Your task to perform on an android device: Open the phone app and click the voicemail tab. Image 0: 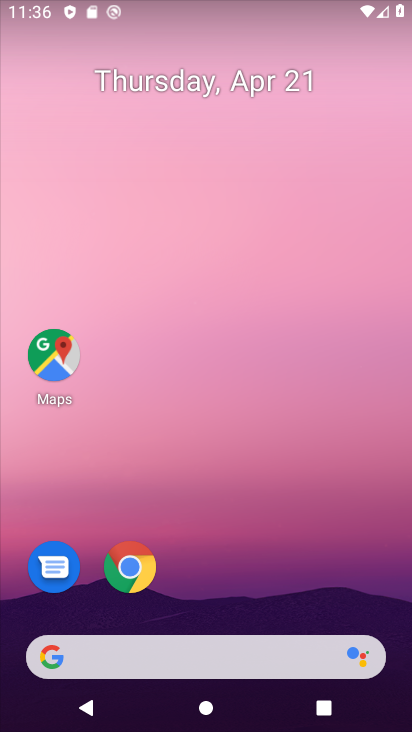
Step 0: drag from (173, 565) to (217, 190)
Your task to perform on an android device: Open the phone app and click the voicemail tab. Image 1: 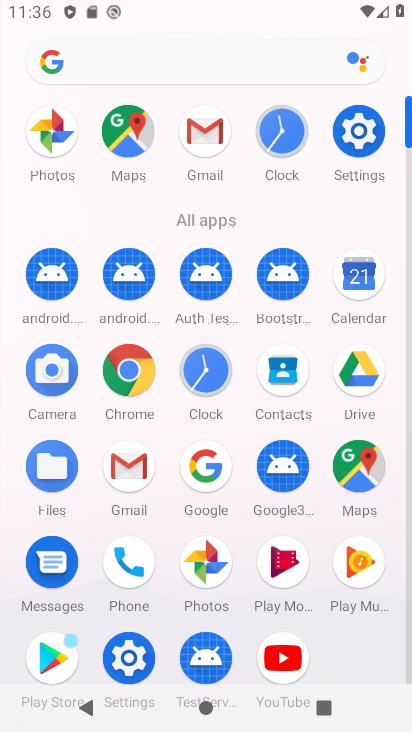
Step 1: click (128, 558)
Your task to perform on an android device: Open the phone app and click the voicemail tab. Image 2: 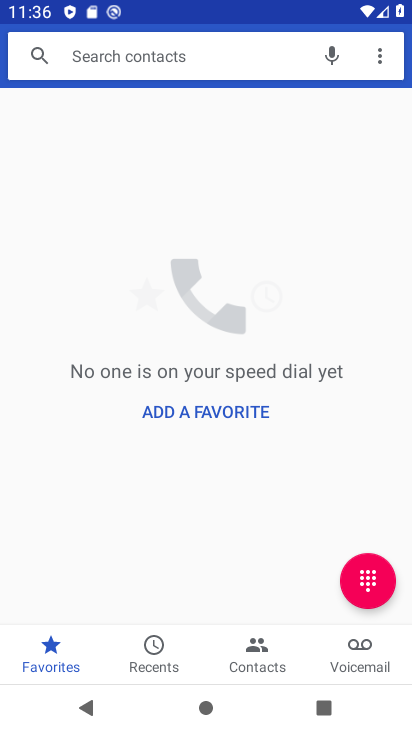
Step 2: click (352, 650)
Your task to perform on an android device: Open the phone app and click the voicemail tab. Image 3: 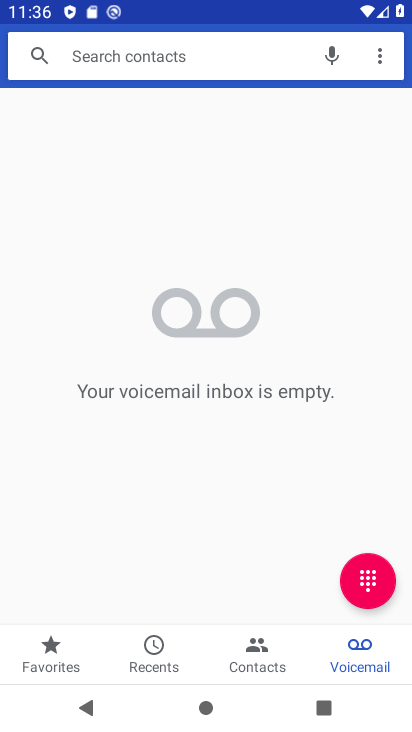
Step 3: task complete